Your task to perform on an android device: toggle notification dots Image 0: 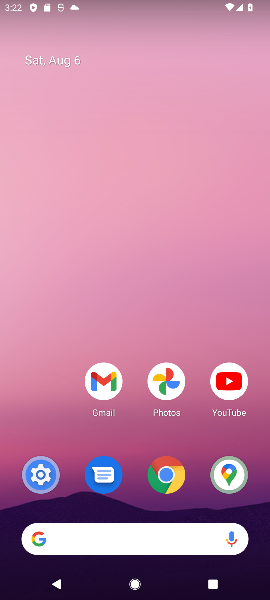
Step 0: click (41, 477)
Your task to perform on an android device: toggle notification dots Image 1: 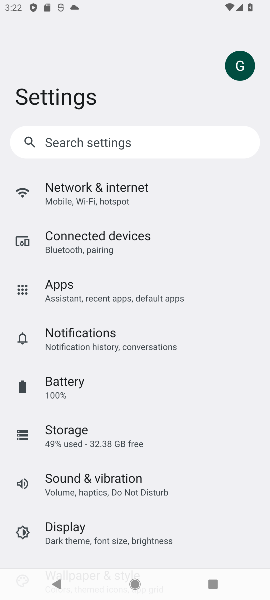
Step 1: click (82, 329)
Your task to perform on an android device: toggle notification dots Image 2: 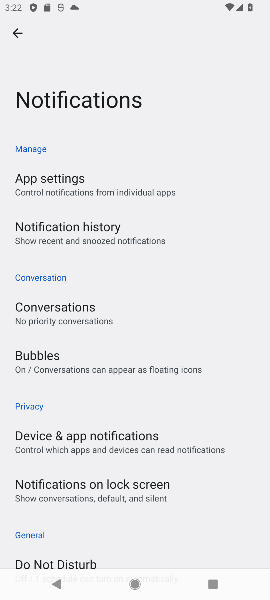
Step 2: task complete